Your task to perform on an android device: turn off airplane mode Image 0: 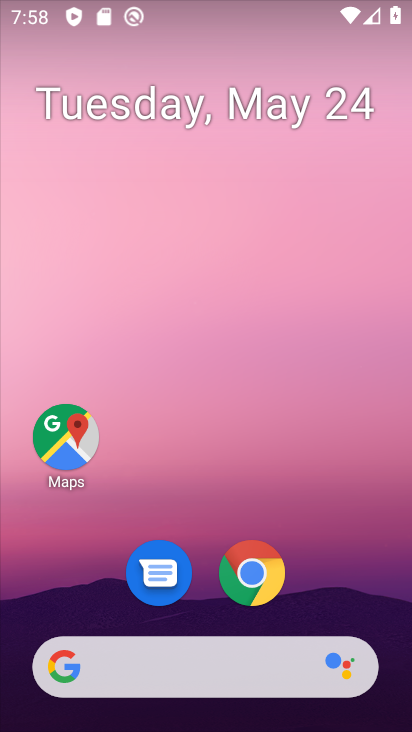
Step 0: drag from (212, 603) to (280, 1)
Your task to perform on an android device: turn off airplane mode Image 1: 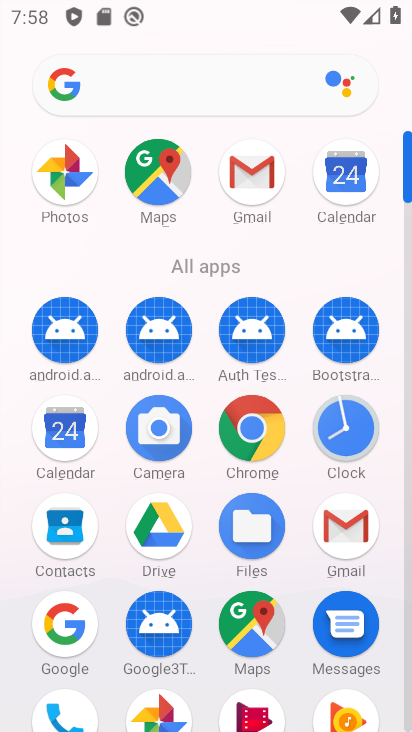
Step 1: drag from (204, 560) to (293, 115)
Your task to perform on an android device: turn off airplane mode Image 2: 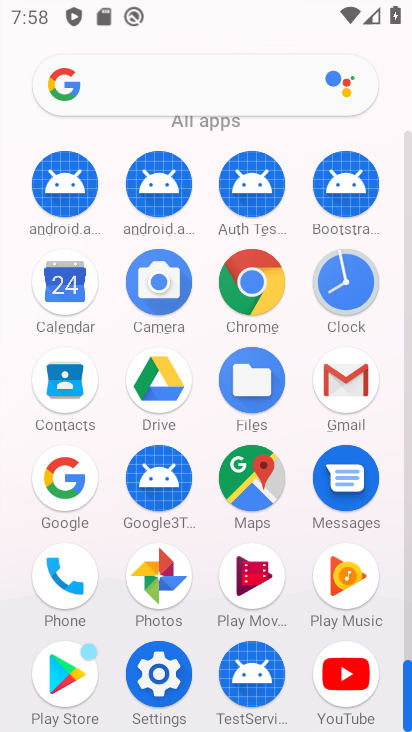
Step 2: click (145, 671)
Your task to perform on an android device: turn off airplane mode Image 3: 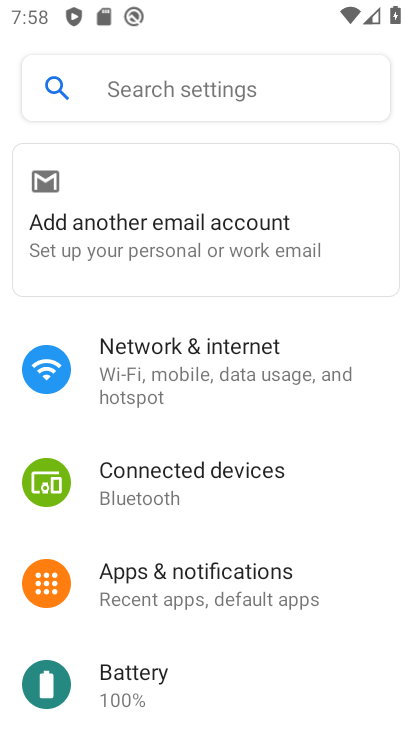
Step 3: click (245, 355)
Your task to perform on an android device: turn off airplane mode Image 4: 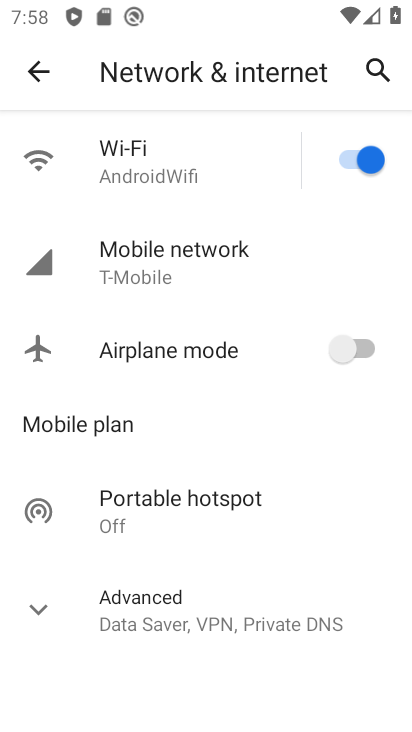
Step 4: task complete